Your task to perform on an android device: Open the map Image 0: 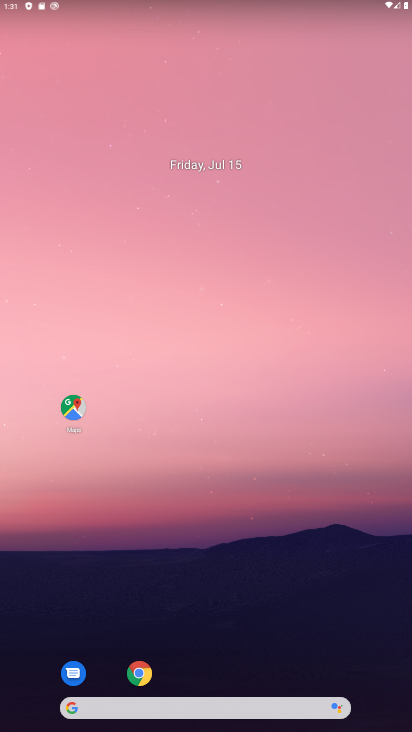
Step 0: drag from (297, 544) to (344, 2)
Your task to perform on an android device: Open the map Image 1: 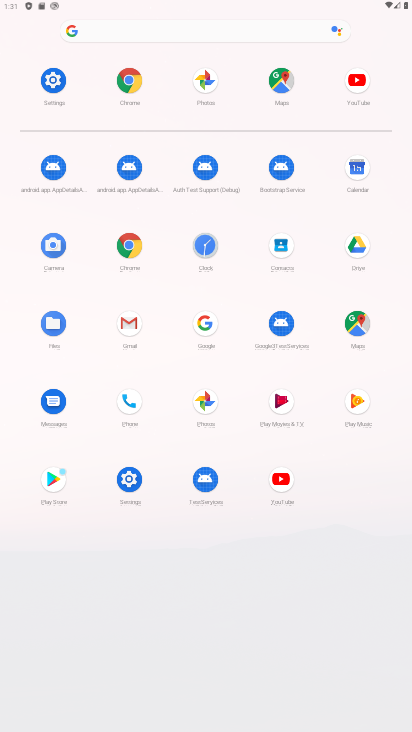
Step 1: click (365, 330)
Your task to perform on an android device: Open the map Image 2: 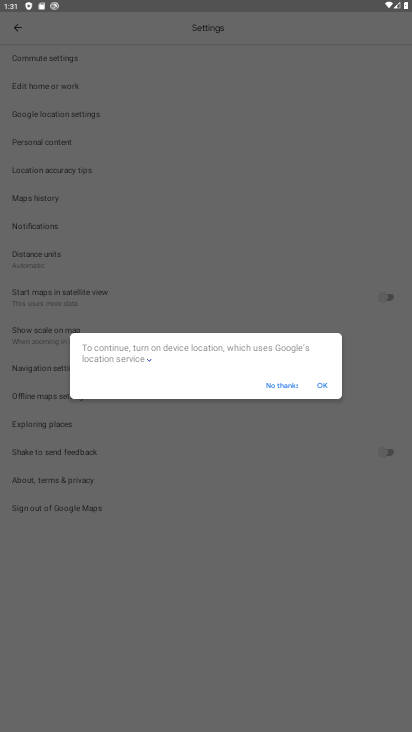
Step 2: click (297, 385)
Your task to perform on an android device: Open the map Image 3: 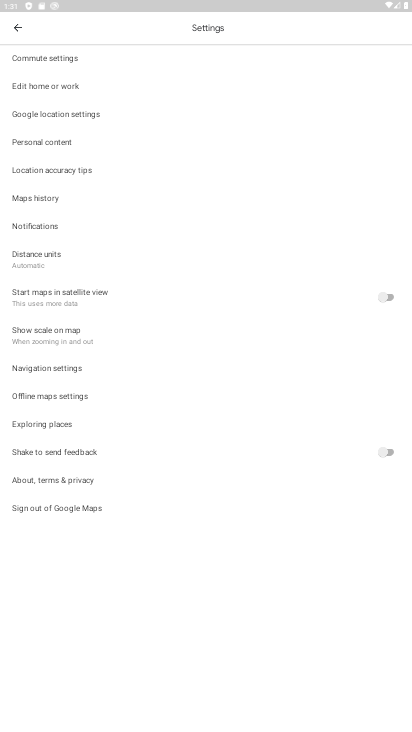
Step 3: task complete